Your task to perform on an android device: search for starred emails in the gmail app Image 0: 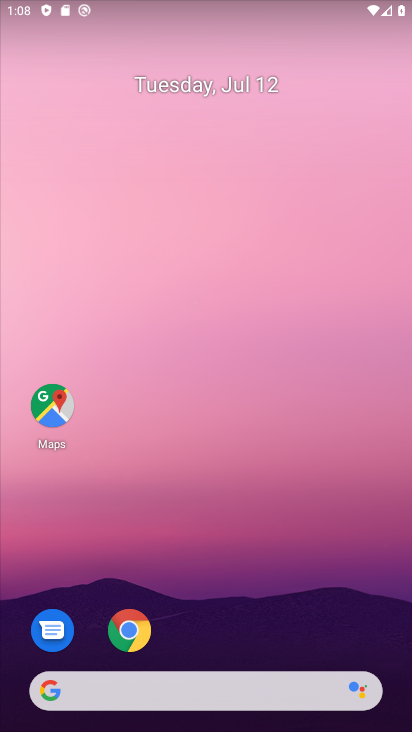
Step 0: drag from (249, 657) to (179, 139)
Your task to perform on an android device: search for starred emails in the gmail app Image 1: 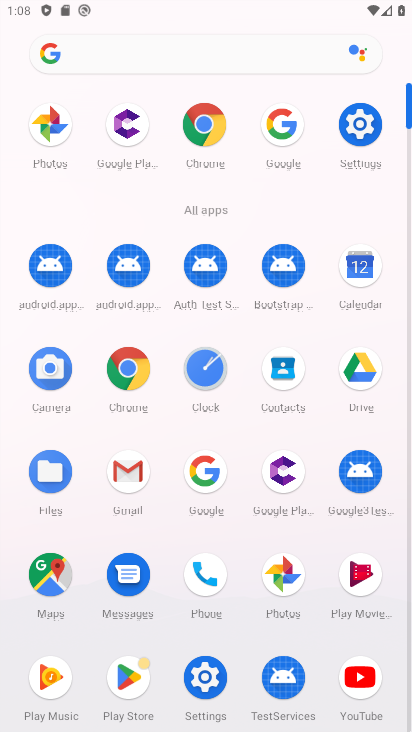
Step 1: click (133, 462)
Your task to perform on an android device: search for starred emails in the gmail app Image 2: 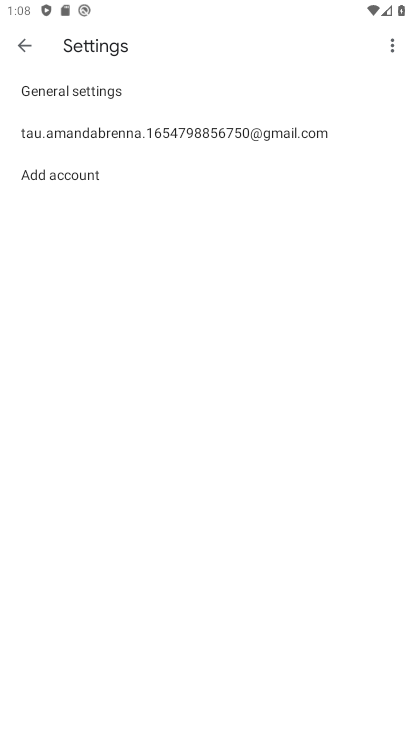
Step 2: click (14, 45)
Your task to perform on an android device: search for starred emails in the gmail app Image 3: 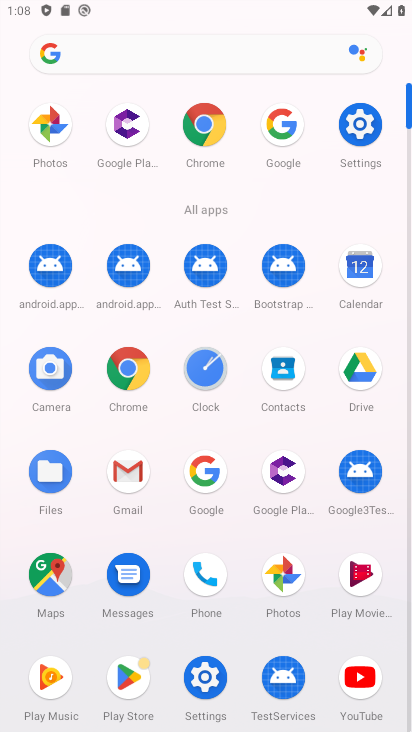
Step 3: click (116, 475)
Your task to perform on an android device: search for starred emails in the gmail app Image 4: 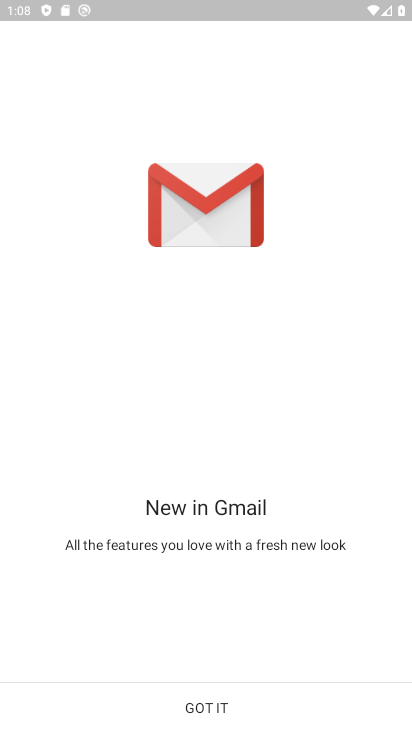
Step 4: click (182, 706)
Your task to perform on an android device: search for starred emails in the gmail app Image 5: 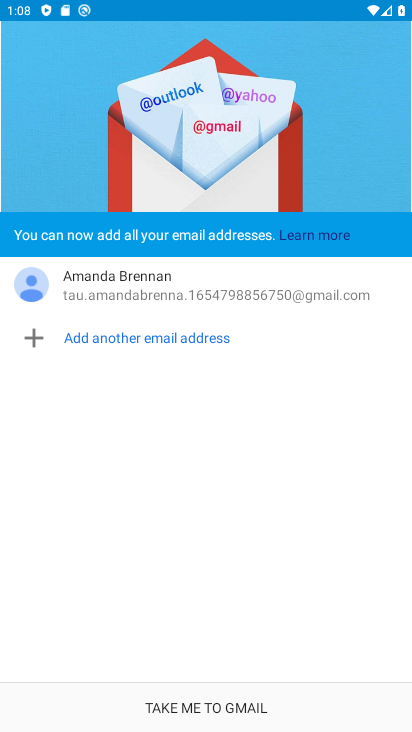
Step 5: click (182, 706)
Your task to perform on an android device: search for starred emails in the gmail app Image 6: 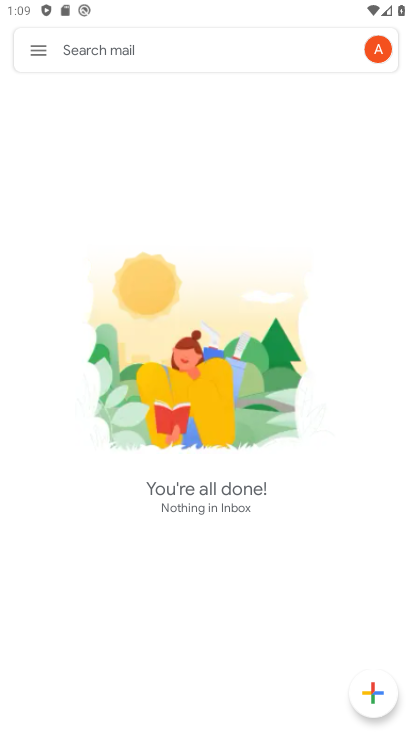
Step 6: click (42, 51)
Your task to perform on an android device: search for starred emails in the gmail app Image 7: 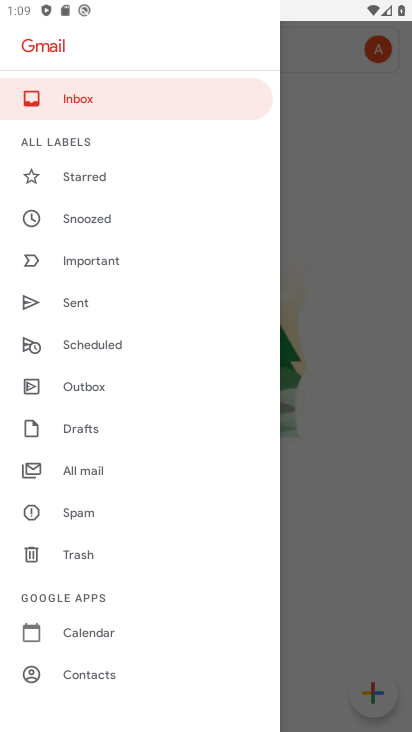
Step 7: click (84, 180)
Your task to perform on an android device: search for starred emails in the gmail app Image 8: 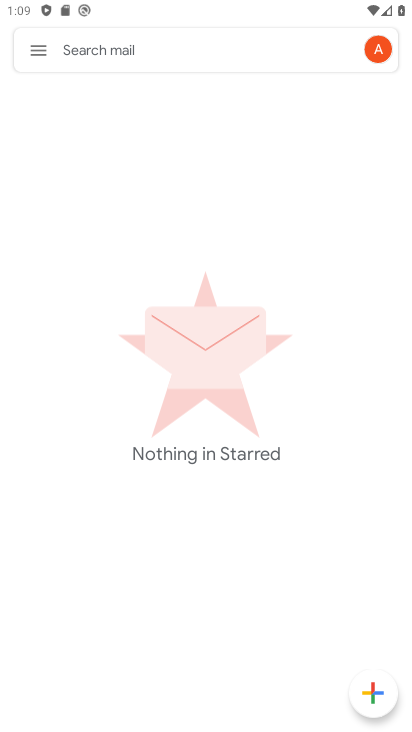
Step 8: task complete